Your task to perform on an android device: turn off javascript in the chrome app Image 0: 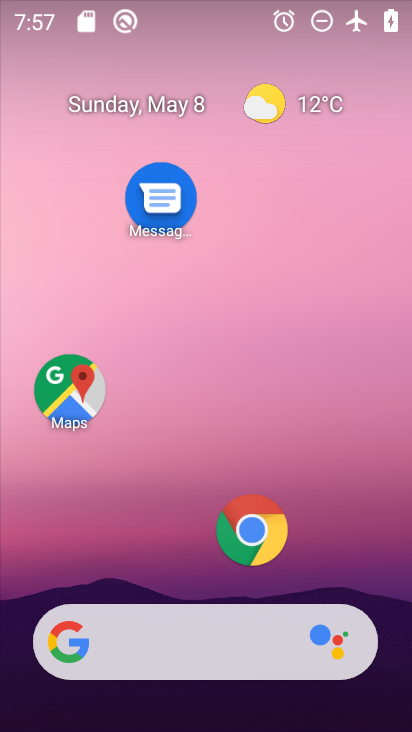
Step 0: press home button
Your task to perform on an android device: turn off javascript in the chrome app Image 1: 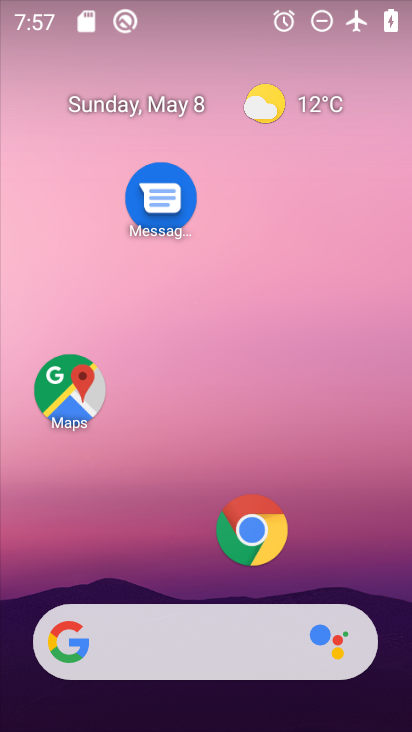
Step 1: click (243, 524)
Your task to perform on an android device: turn off javascript in the chrome app Image 2: 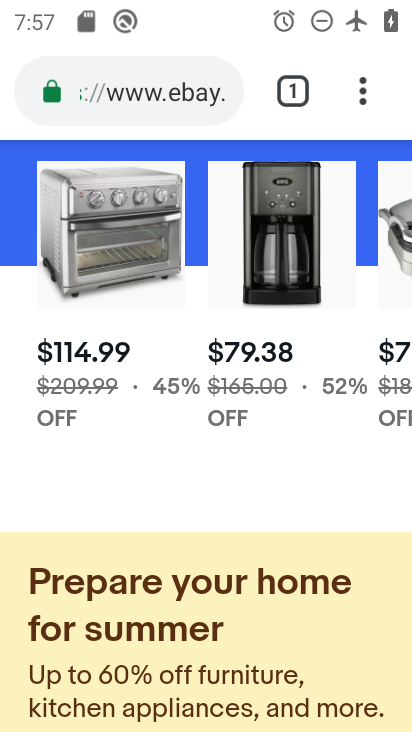
Step 2: drag from (275, 176) to (252, 653)
Your task to perform on an android device: turn off javascript in the chrome app Image 3: 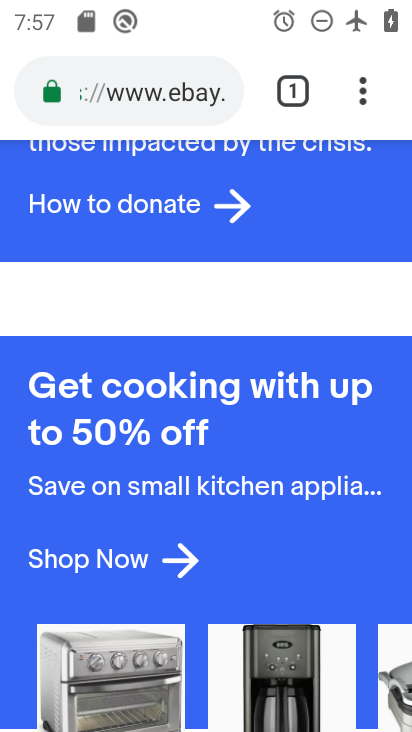
Step 3: click (368, 97)
Your task to perform on an android device: turn off javascript in the chrome app Image 4: 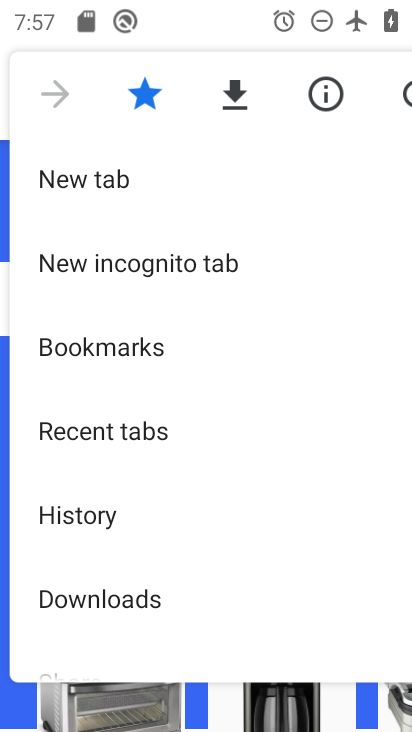
Step 4: drag from (210, 578) to (241, 87)
Your task to perform on an android device: turn off javascript in the chrome app Image 5: 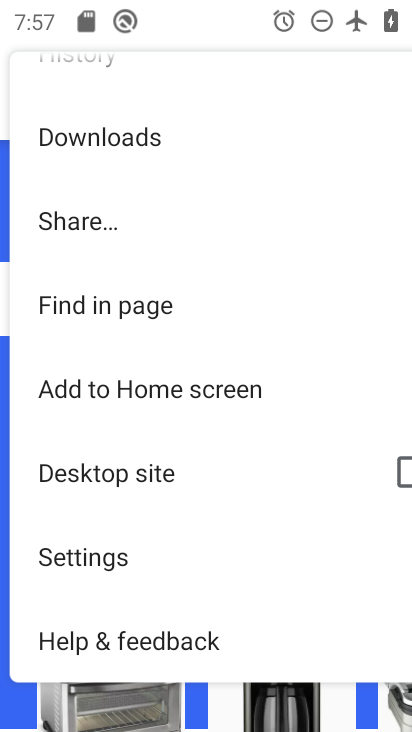
Step 5: click (145, 559)
Your task to perform on an android device: turn off javascript in the chrome app Image 6: 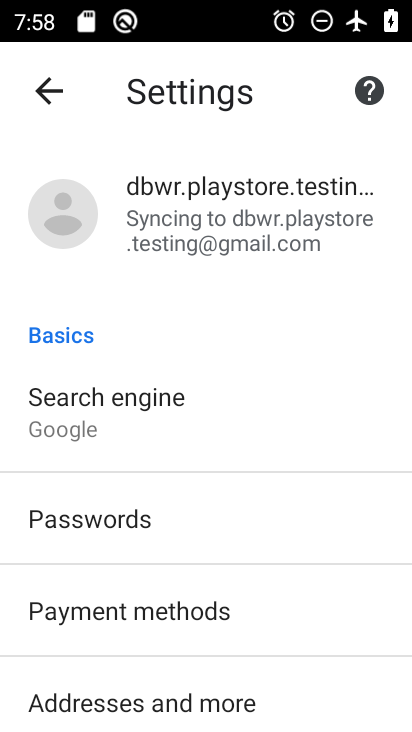
Step 6: drag from (251, 667) to (263, 181)
Your task to perform on an android device: turn off javascript in the chrome app Image 7: 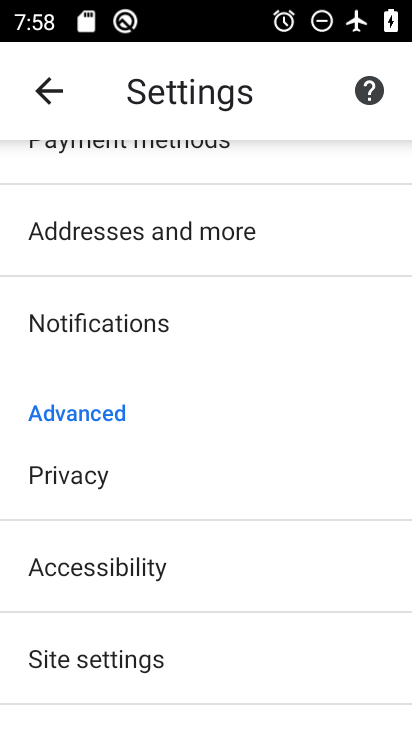
Step 7: click (183, 663)
Your task to perform on an android device: turn off javascript in the chrome app Image 8: 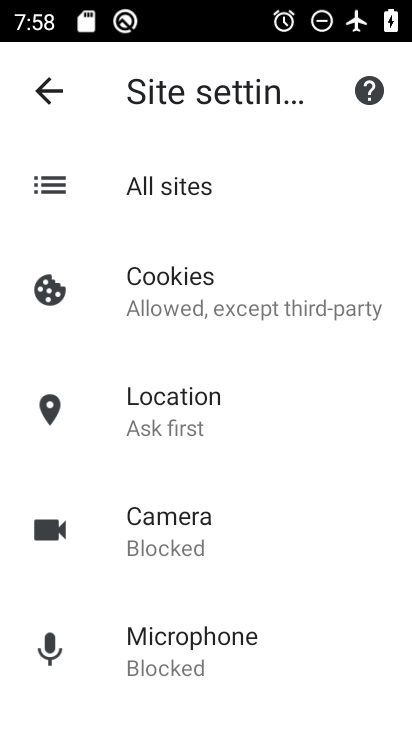
Step 8: drag from (259, 667) to (275, 156)
Your task to perform on an android device: turn off javascript in the chrome app Image 9: 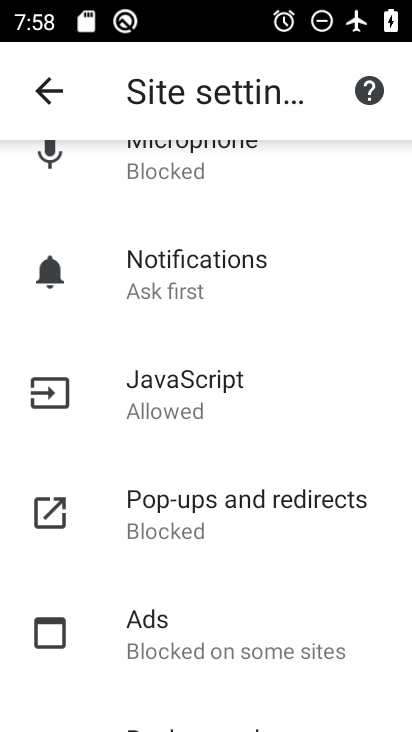
Step 9: click (163, 393)
Your task to perform on an android device: turn off javascript in the chrome app Image 10: 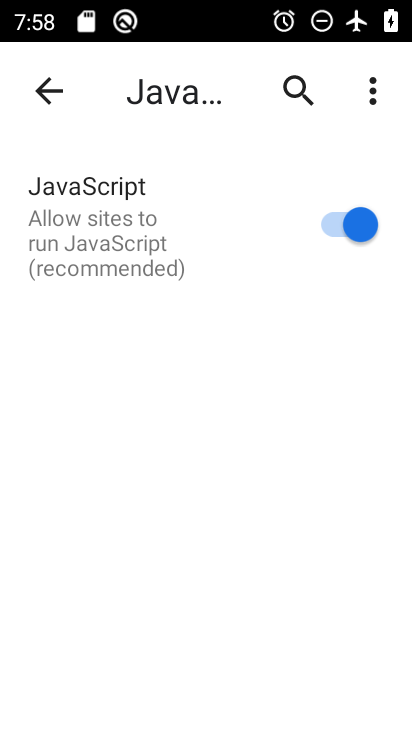
Step 10: click (331, 218)
Your task to perform on an android device: turn off javascript in the chrome app Image 11: 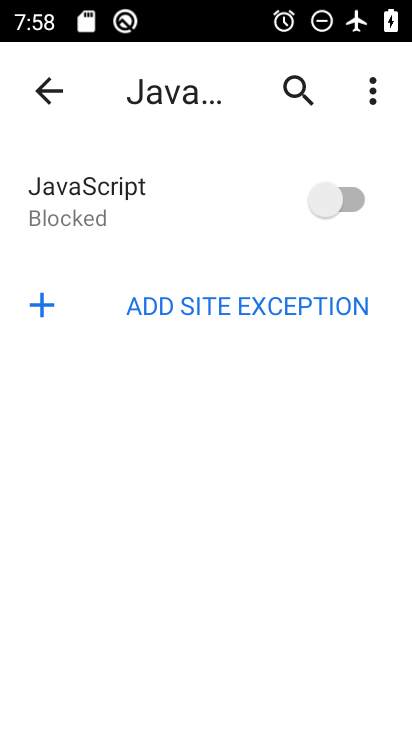
Step 11: task complete